Your task to perform on an android device: Go to Google Image 0: 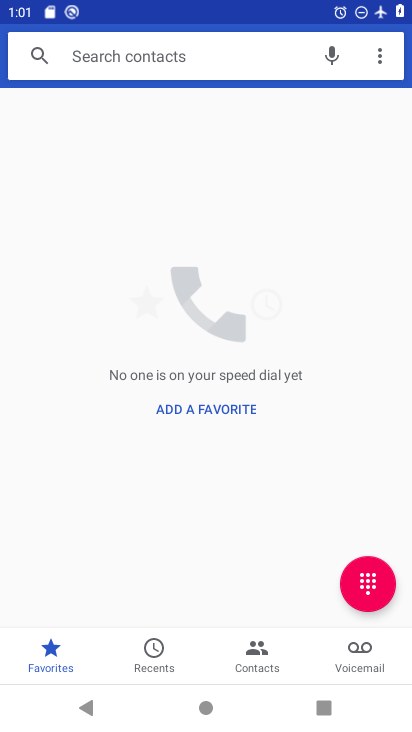
Step 0: press home button
Your task to perform on an android device: Go to Google Image 1: 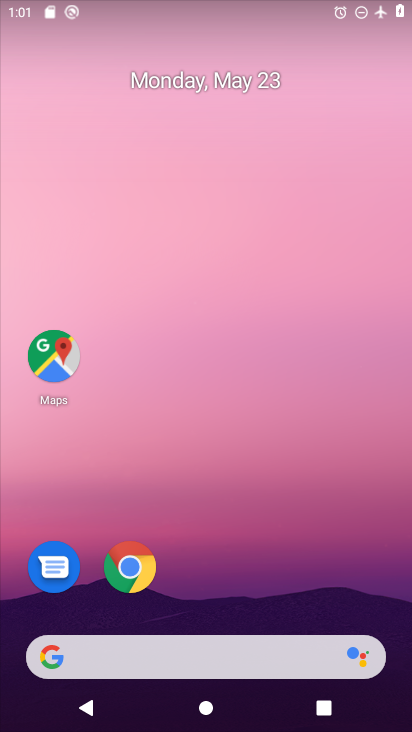
Step 1: drag from (232, 563) to (236, 157)
Your task to perform on an android device: Go to Google Image 2: 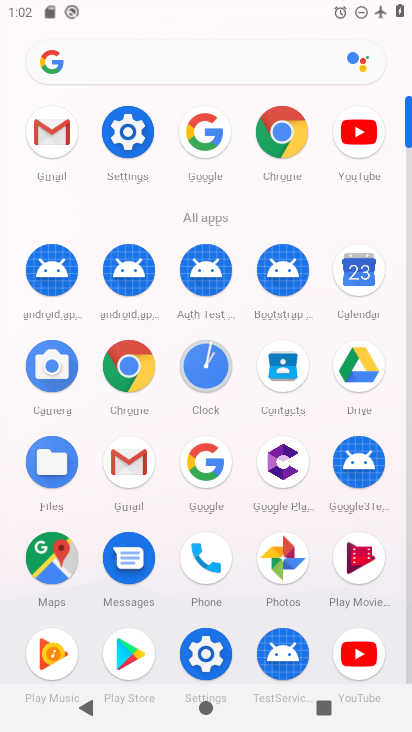
Step 2: click (211, 446)
Your task to perform on an android device: Go to Google Image 3: 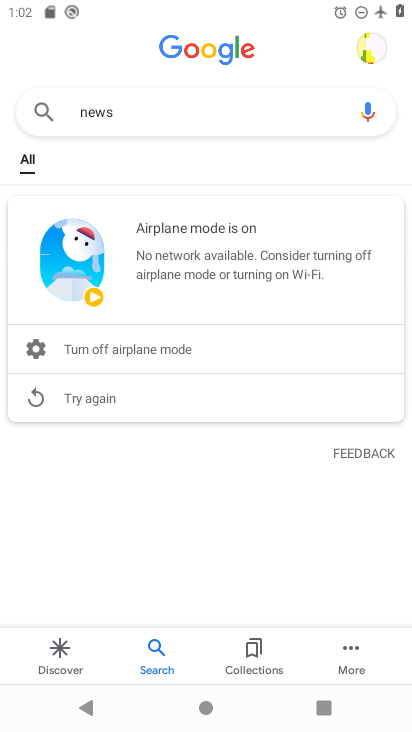
Step 3: task complete